Your task to perform on an android device: toggle improve location accuracy Image 0: 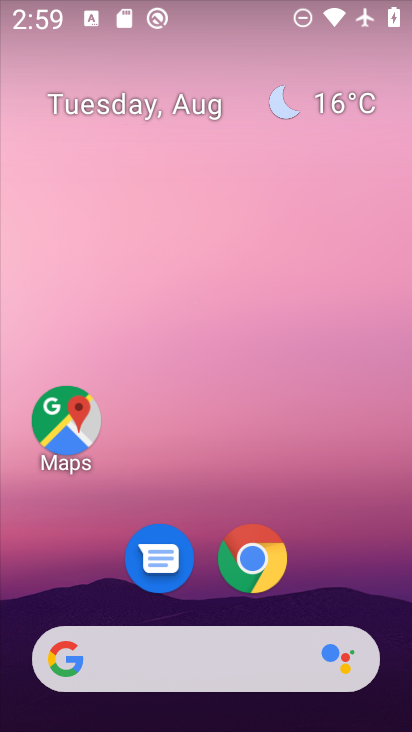
Step 0: drag from (200, 493) to (206, 23)
Your task to perform on an android device: toggle improve location accuracy Image 1: 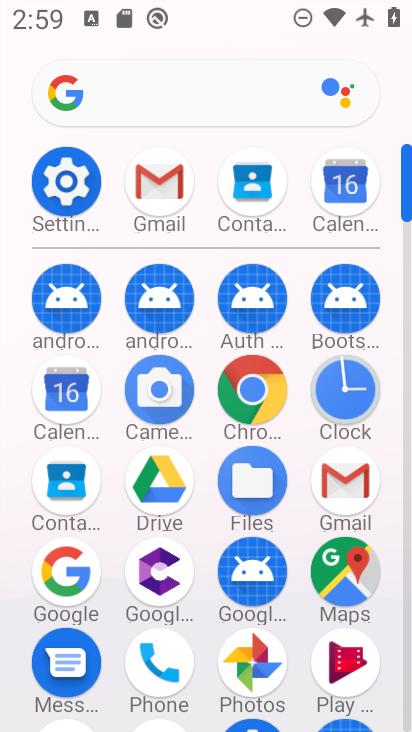
Step 1: click (60, 190)
Your task to perform on an android device: toggle improve location accuracy Image 2: 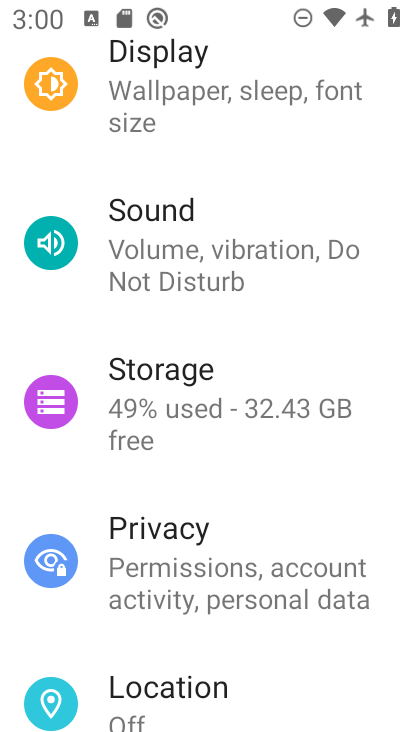
Step 2: click (213, 685)
Your task to perform on an android device: toggle improve location accuracy Image 3: 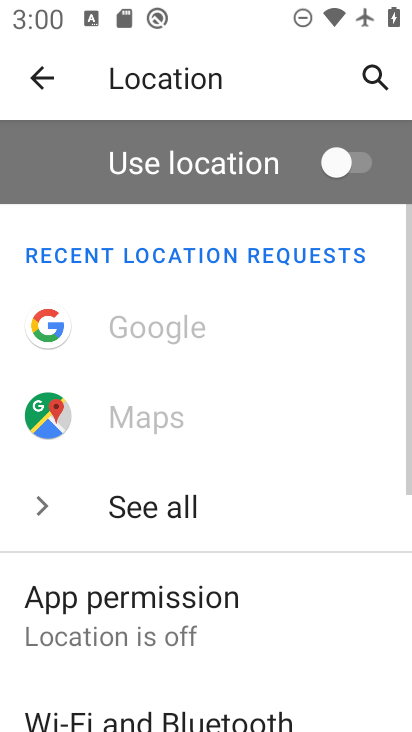
Step 3: drag from (229, 649) to (212, 226)
Your task to perform on an android device: toggle improve location accuracy Image 4: 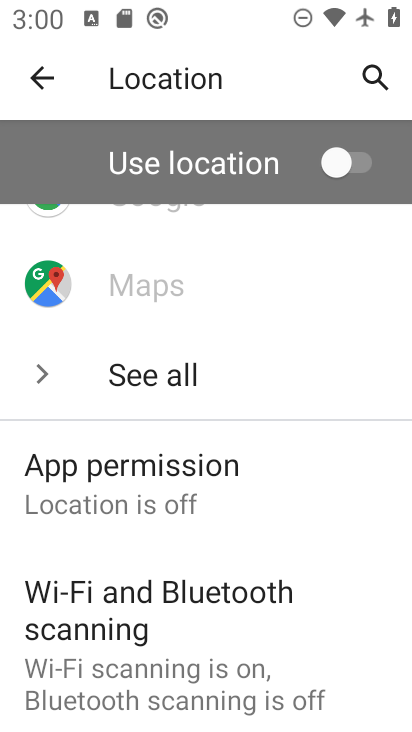
Step 4: drag from (249, 606) to (257, 281)
Your task to perform on an android device: toggle improve location accuracy Image 5: 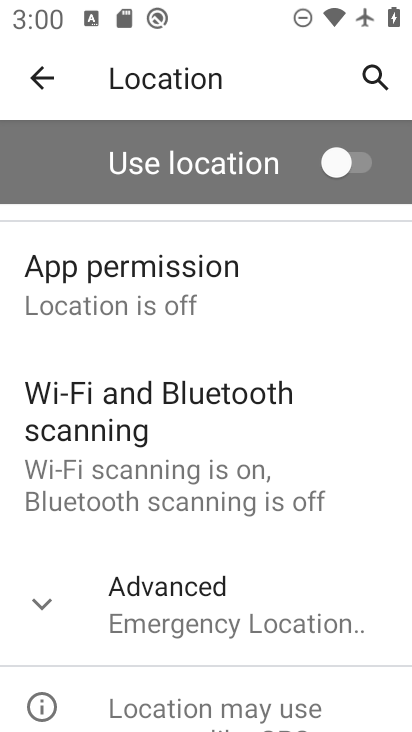
Step 5: click (170, 578)
Your task to perform on an android device: toggle improve location accuracy Image 6: 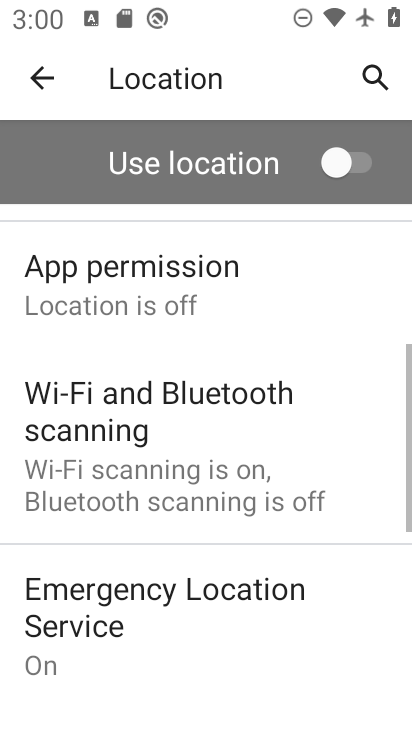
Step 6: drag from (182, 651) to (212, 282)
Your task to perform on an android device: toggle improve location accuracy Image 7: 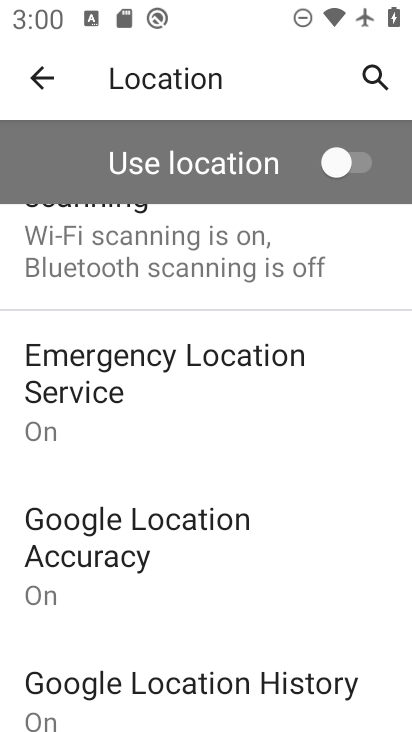
Step 7: drag from (220, 585) to (226, 200)
Your task to perform on an android device: toggle improve location accuracy Image 8: 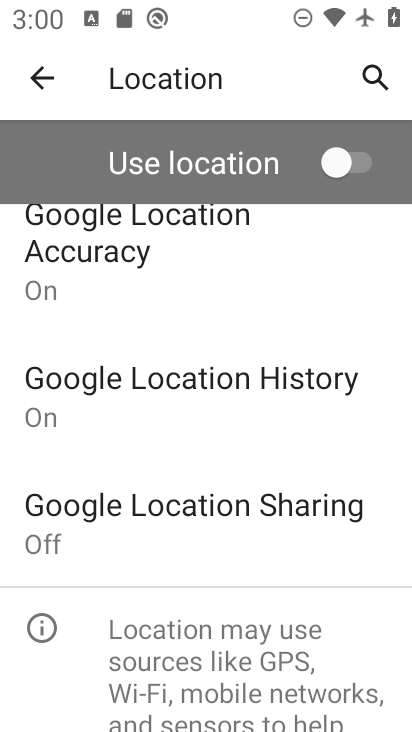
Step 8: click (201, 259)
Your task to perform on an android device: toggle improve location accuracy Image 9: 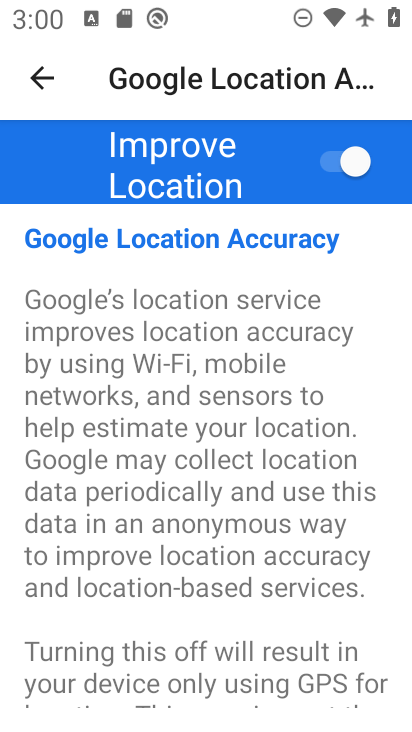
Step 9: click (337, 170)
Your task to perform on an android device: toggle improve location accuracy Image 10: 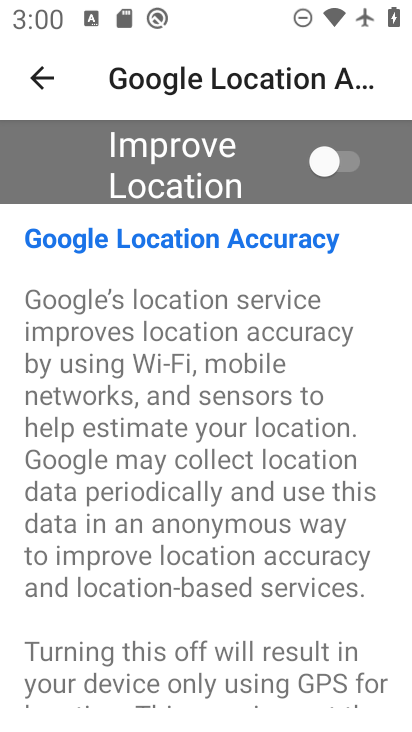
Step 10: task complete